Your task to perform on an android device: change keyboard looks Image 0: 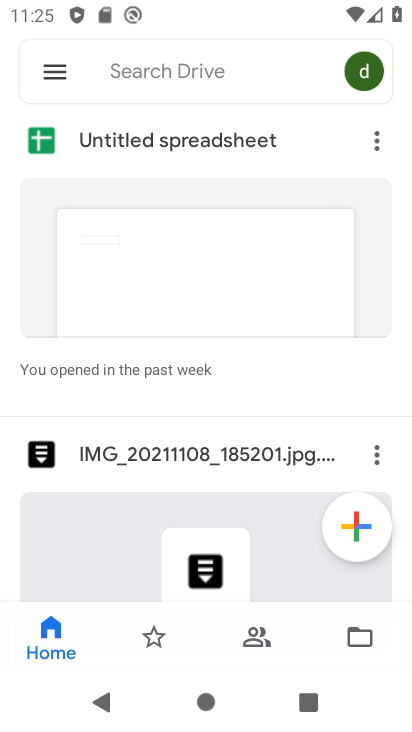
Step 0: press home button
Your task to perform on an android device: change keyboard looks Image 1: 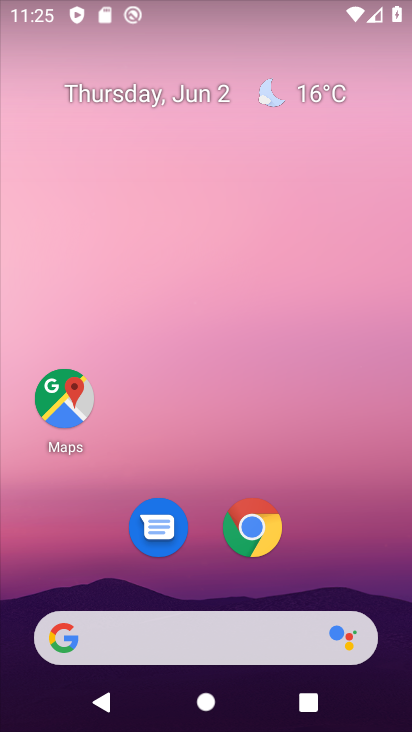
Step 1: click (353, 155)
Your task to perform on an android device: change keyboard looks Image 2: 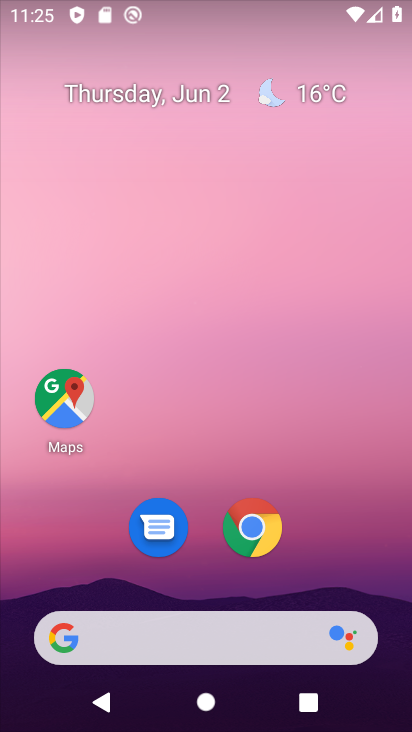
Step 2: drag from (233, 608) to (244, 9)
Your task to perform on an android device: change keyboard looks Image 3: 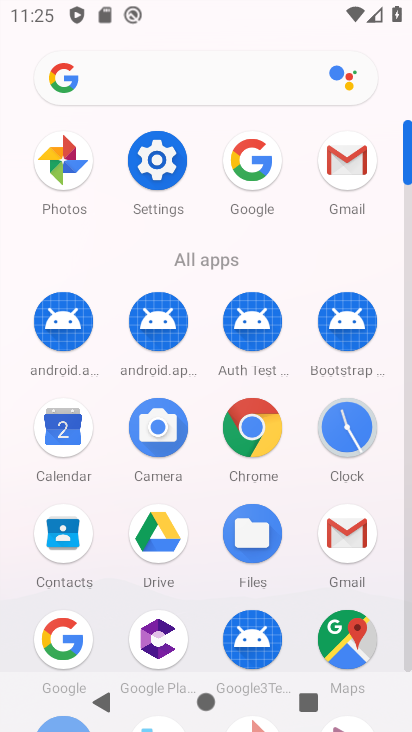
Step 3: click (132, 152)
Your task to perform on an android device: change keyboard looks Image 4: 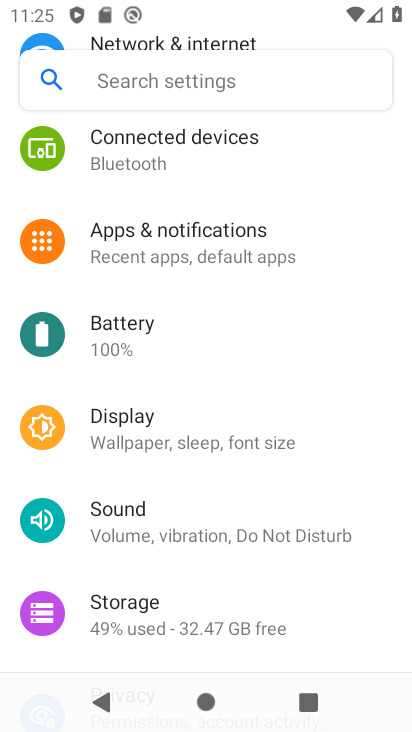
Step 4: drag from (169, 552) to (52, 19)
Your task to perform on an android device: change keyboard looks Image 5: 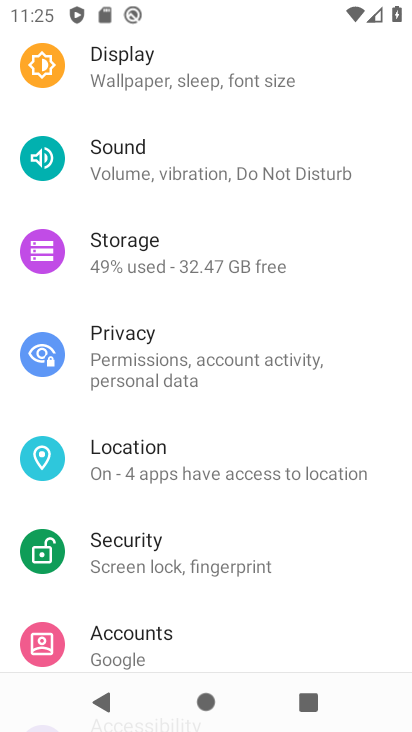
Step 5: drag from (156, 533) to (169, 92)
Your task to perform on an android device: change keyboard looks Image 6: 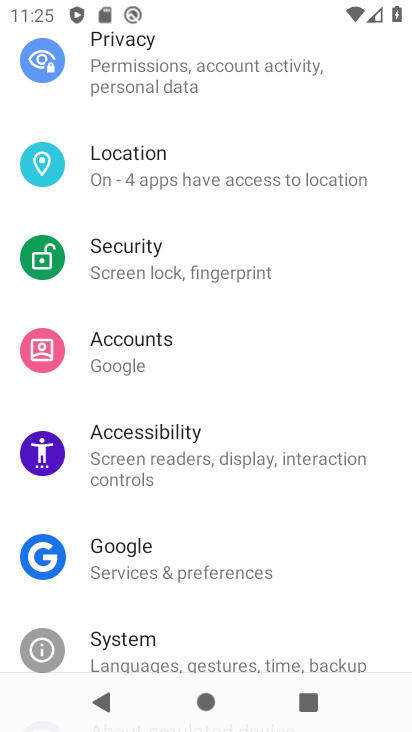
Step 6: click (144, 645)
Your task to perform on an android device: change keyboard looks Image 7: 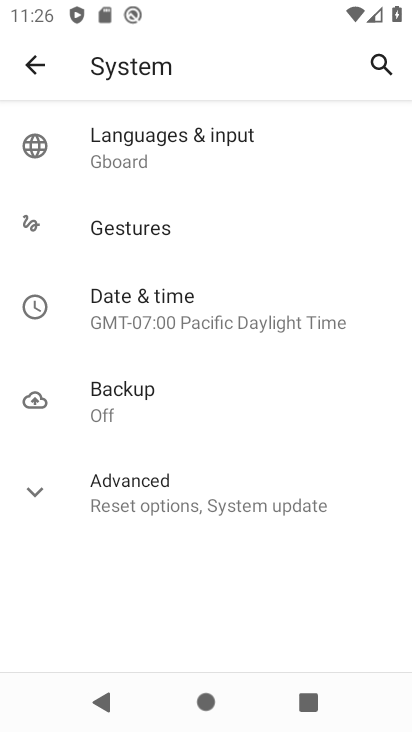
Step 7: click (135, 132)
Your task to perform on an android device: change keyboard looks Image 8: 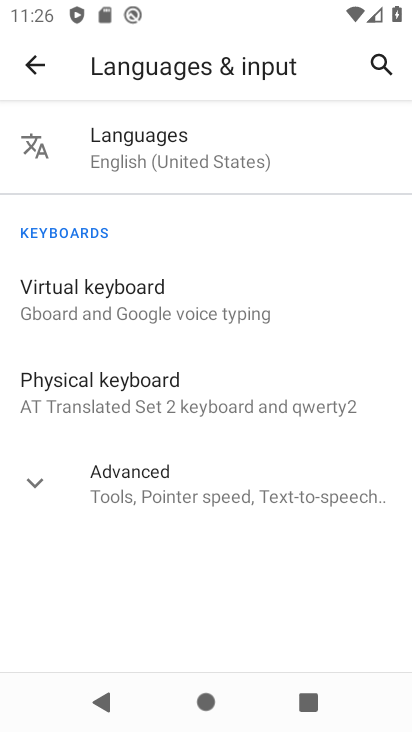
Step 8: click (85, 303)
Your task to perform on an android device: change keyboard looks Image 9: 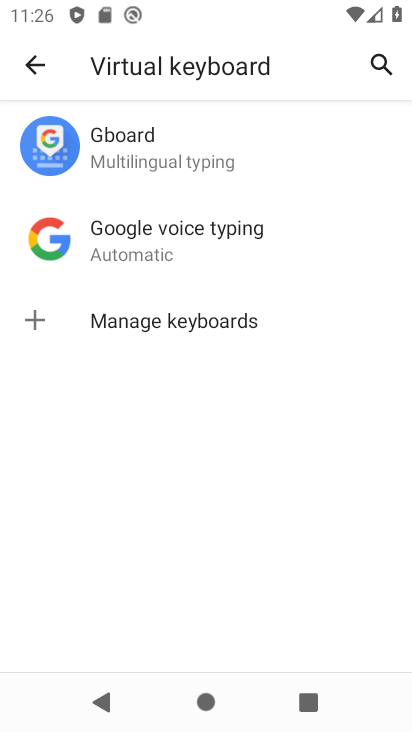
Step 9: click (115, 141)
Your task to perform on an android device: change keyboard looks Image 10: 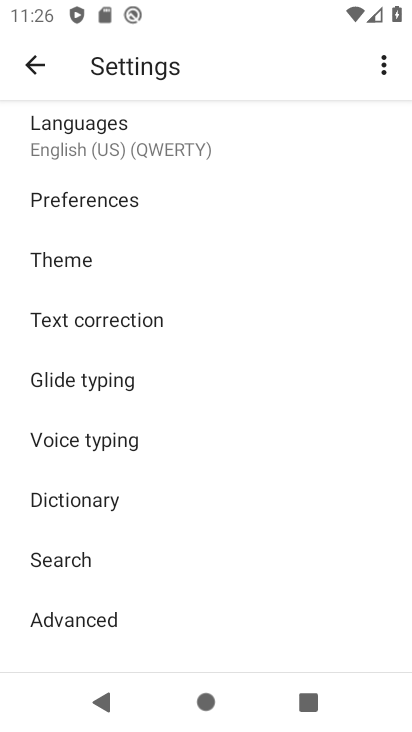
Step 10: click (113, 256)
Your task to perform on an android device: change keyboard looks Image 11: 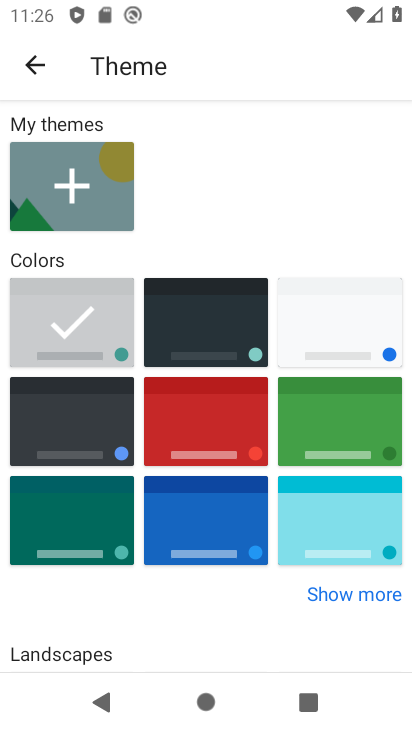
Step 11: click (186, 452)
Your task to perform on an android device: change keyboard looks Image 12: 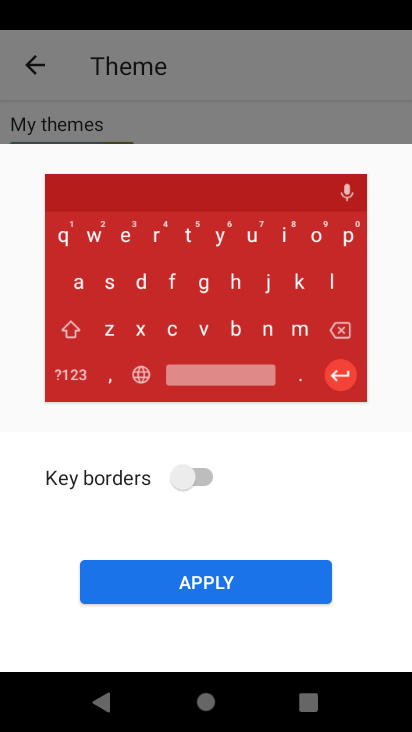
Step 12: click (188, 481)
Your task to perform on an android device: change keyboard looks Image 13: 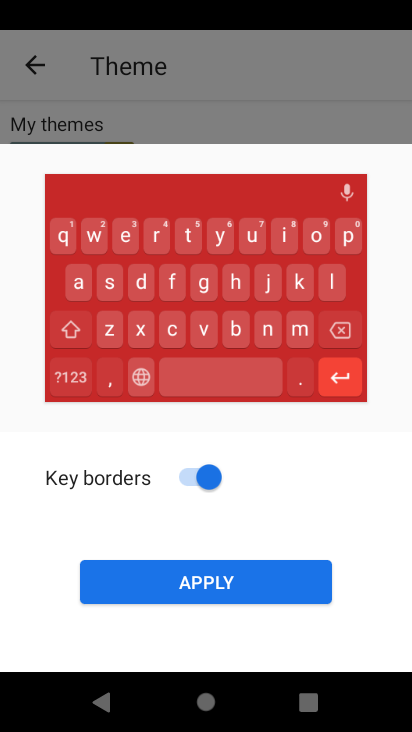
Step 13: click (161, 581)
Your task to perform on an android device: change keyboard looks Image 14: 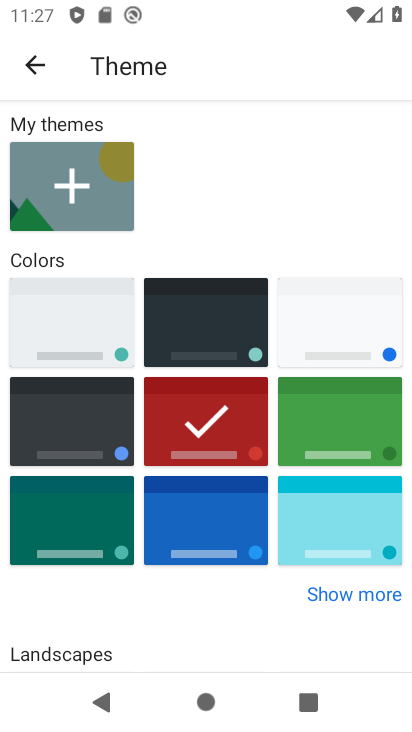
Step 14: task complete